Your task to perform on an android device: Open wifi settings Image 0: 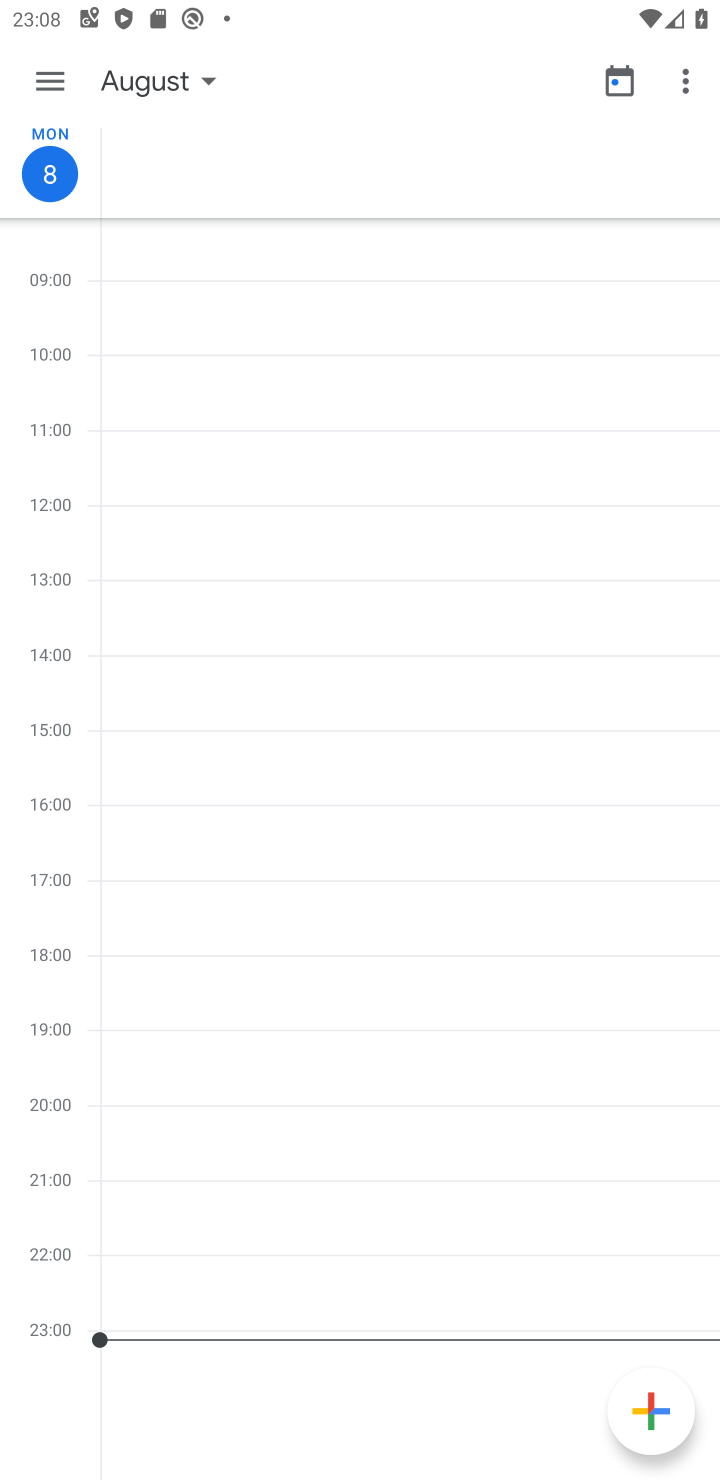
Step 0: press home button
Your task to perform on an android device: Open wifi settings Image 1: 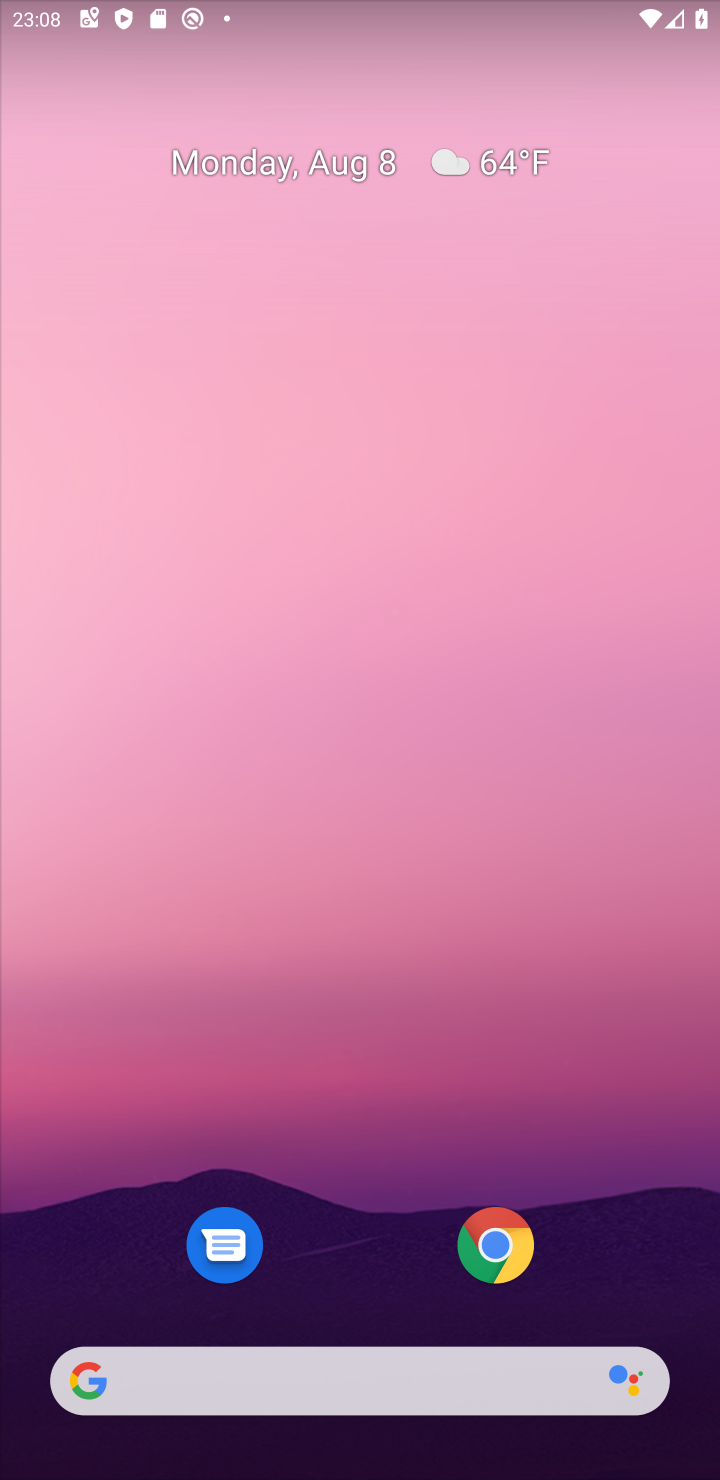
Step 1: drag from (349, 1122) to (337, 322)
Your task to perform on an android device: Open wifi settings Image 2: 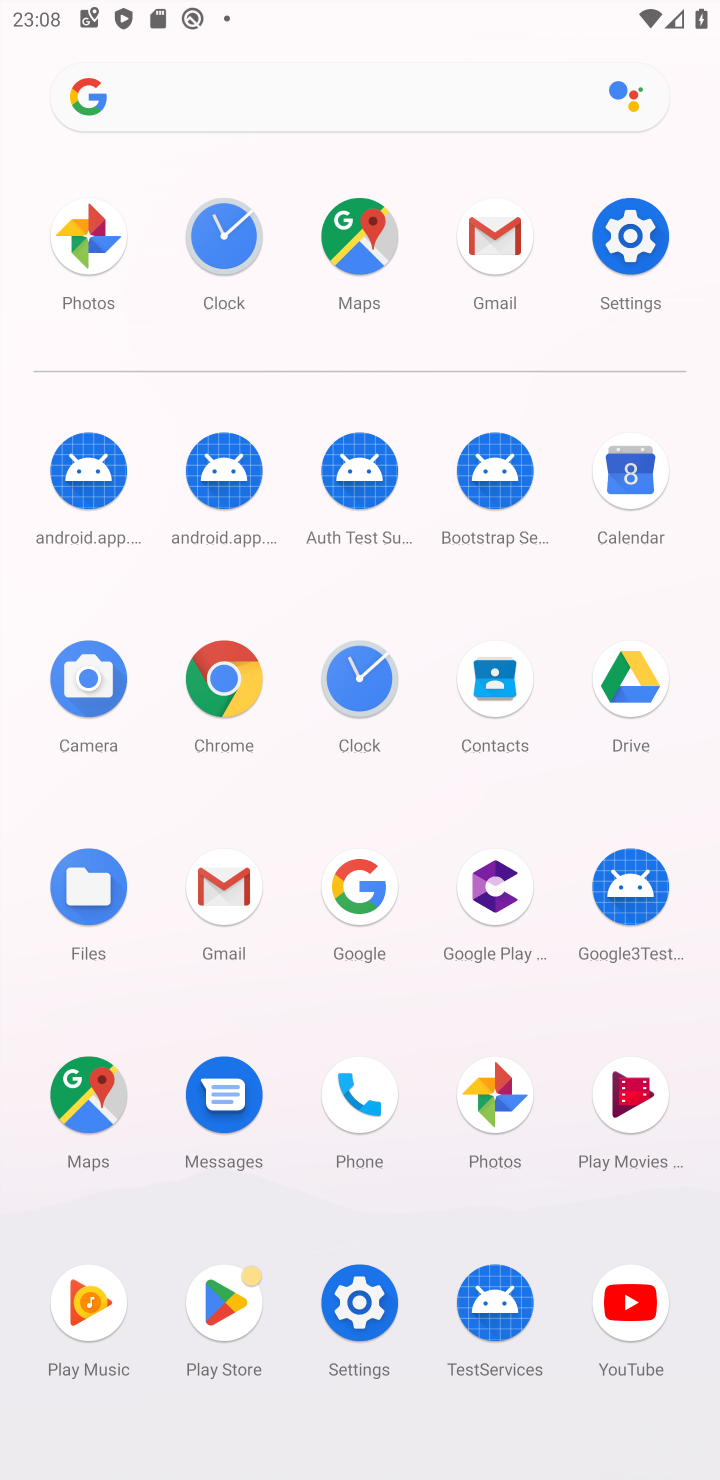
Step 2: click (625, 239)
Your task to perform on an android device: Open wifi settings Image 3: 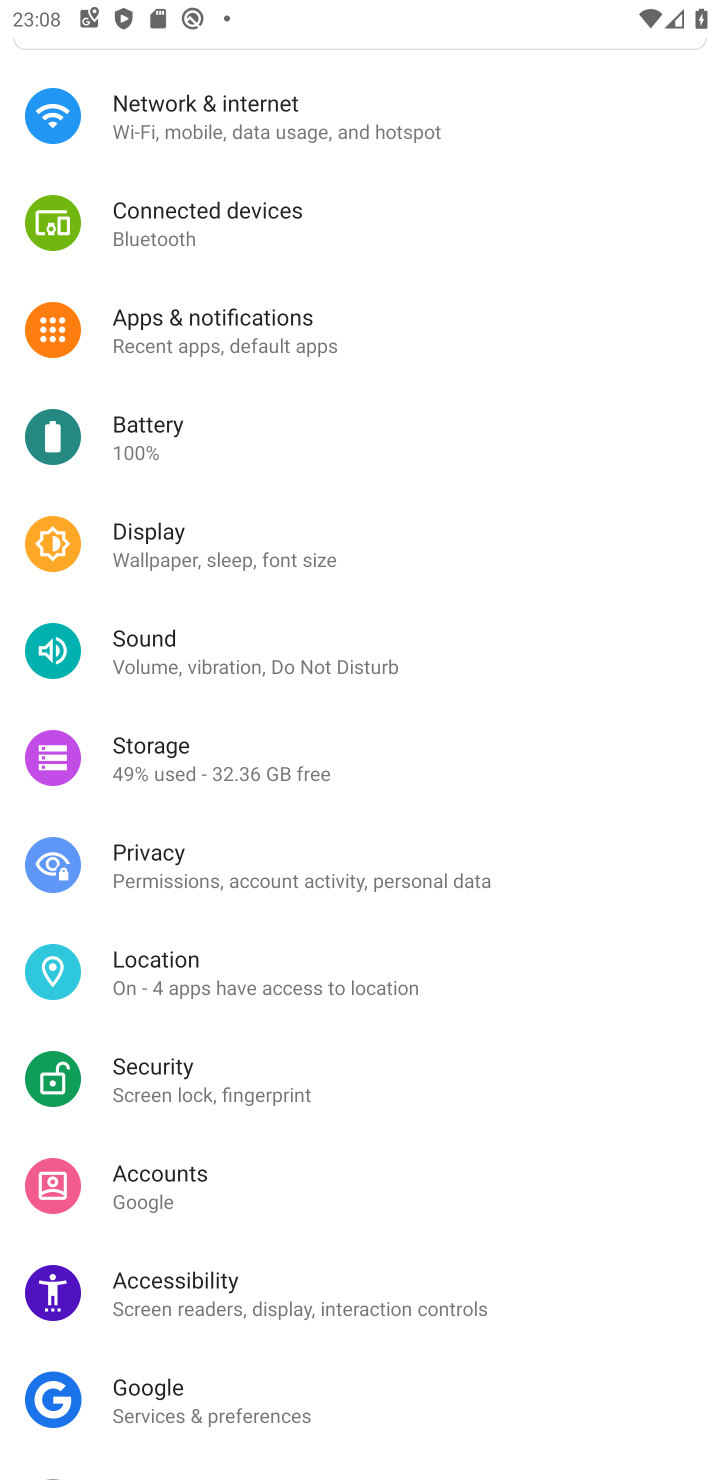
Step 3: click (208, 84)
Your task to perform on an android device: Open wifi settings Image 4: 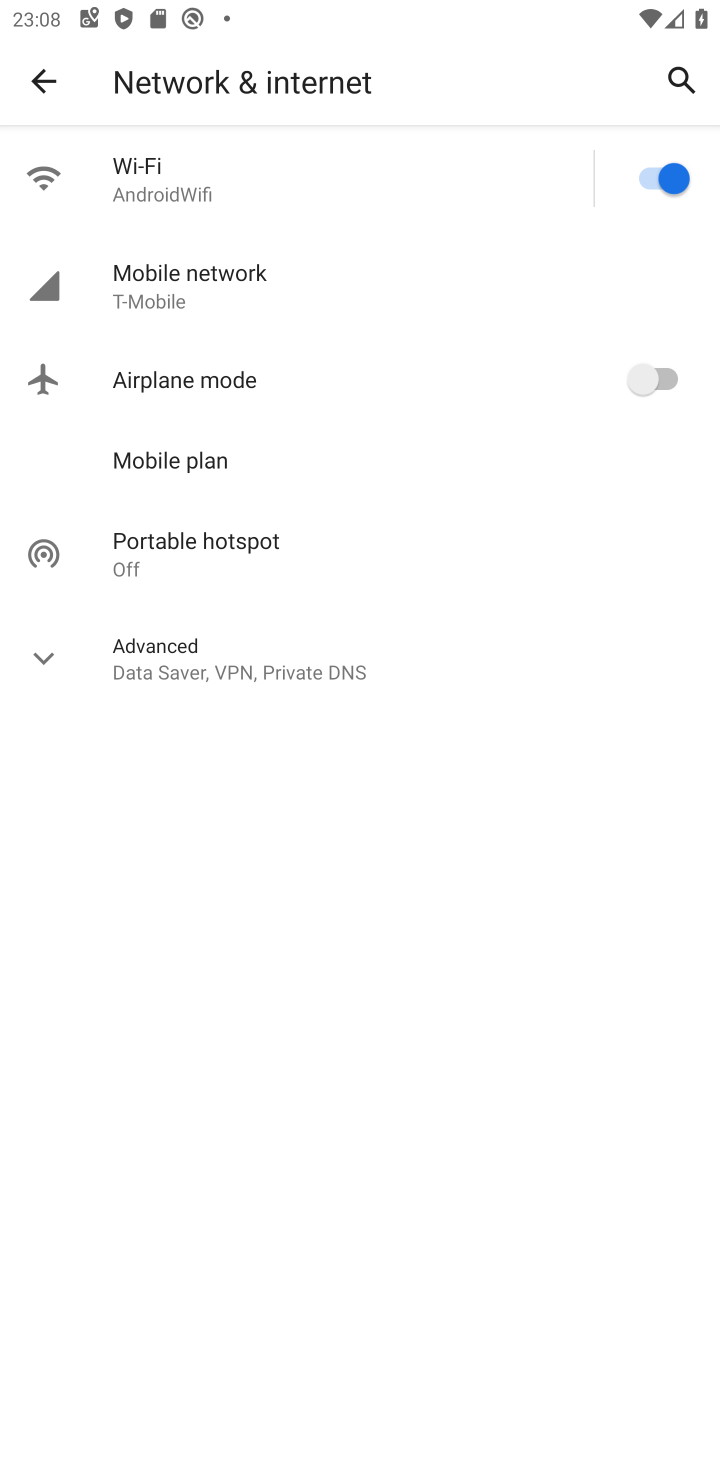
Step 4: click (148, 150)
Your task to perform on an android device: Open wifi settings Image 5: 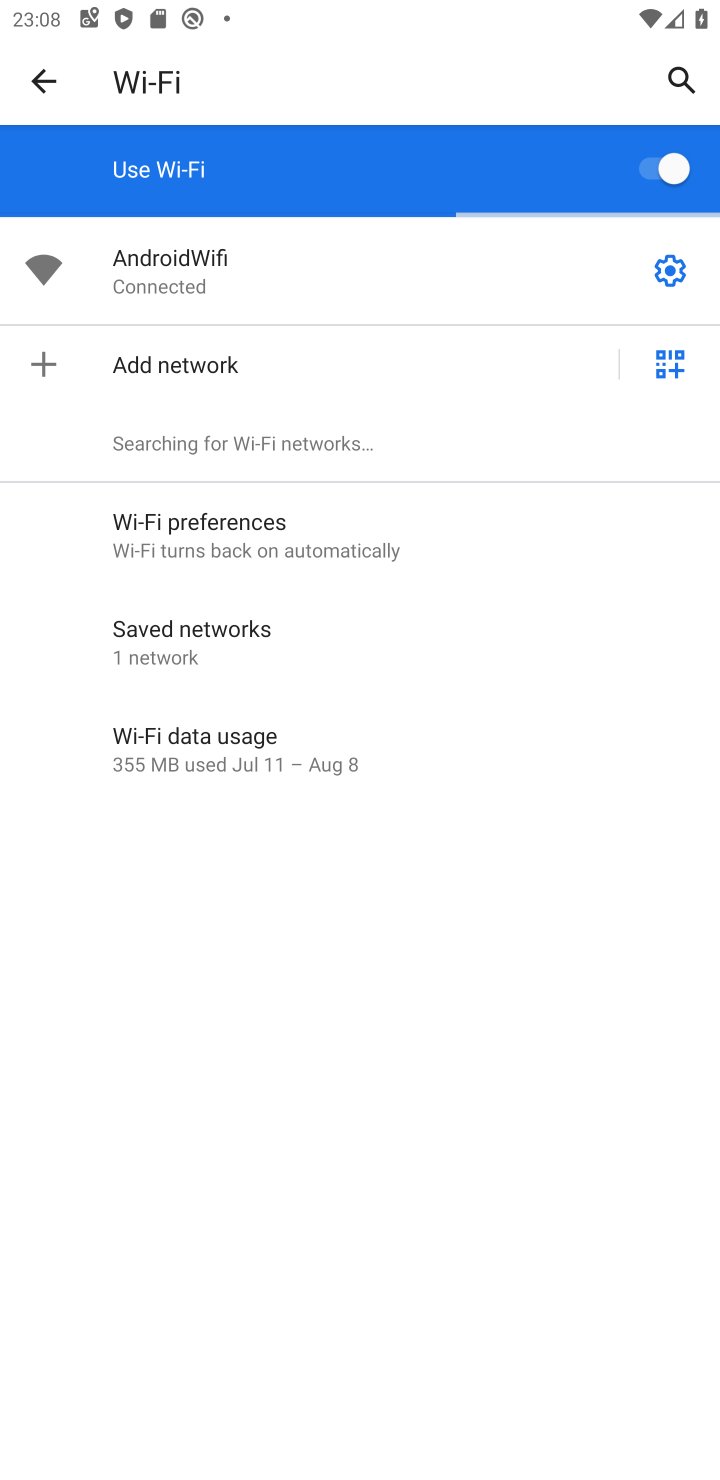
Step 5: task complete